Your task to perform on an android device: turn off translation in the chrome app Image 0: 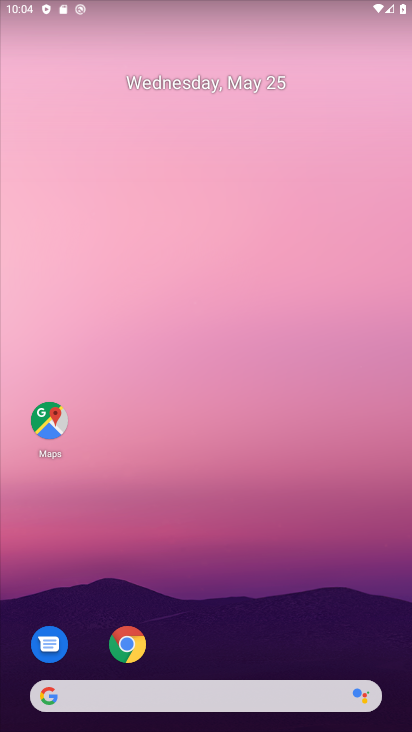
Step 0: drag from (226, 621) to (290, 71)
Your task to perform on an android device: turn off translation in the chrome app Image 1: 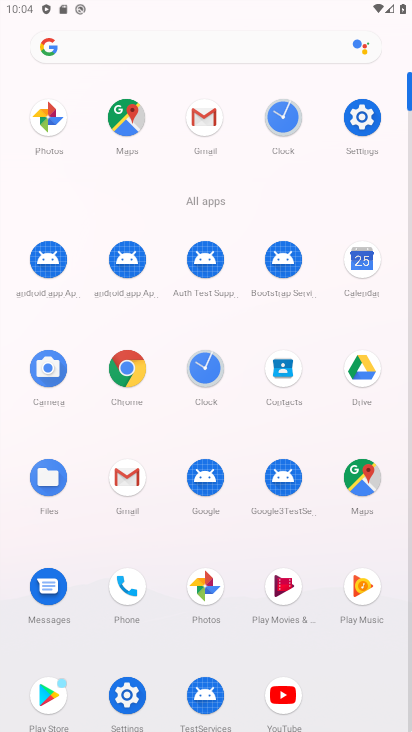
Step 1: click (128, 368)
Your task to perform on an android device: turn off translation in the chrome app Image 2: 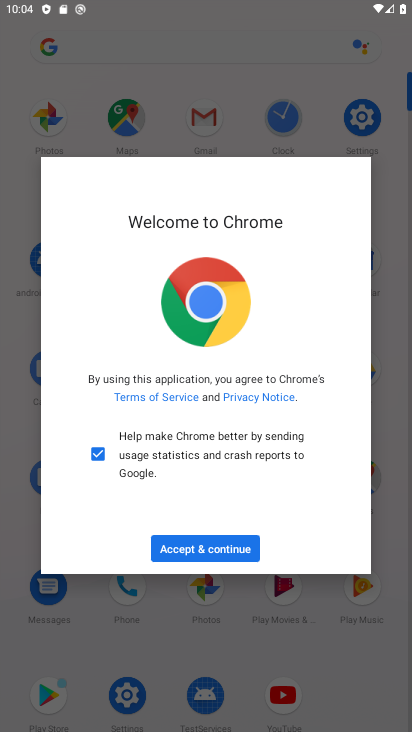
Step 2: click (190, 541)
Your task to perform on an android device: turn off translation in the chrome app Image 3: 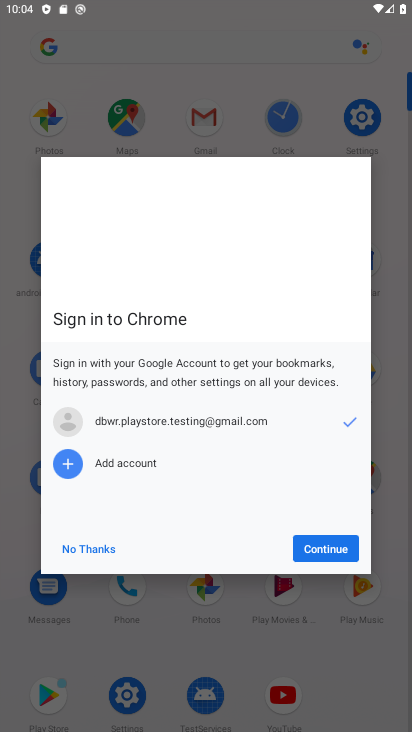
Step 3: click (313, 546)
Your task to perform on an android device: turn off translation in the chrome app Image 4: 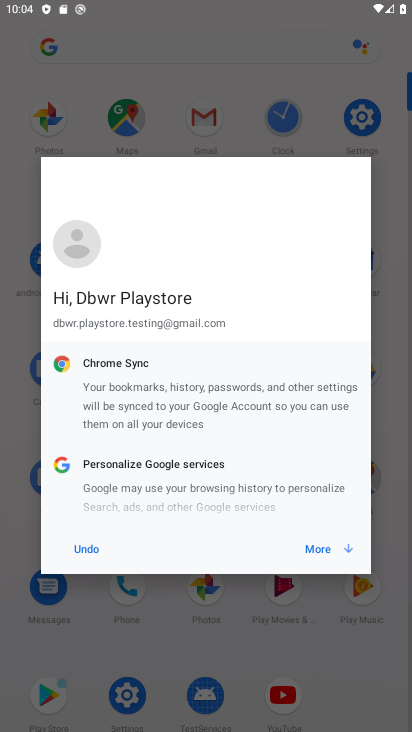
Step 4: click (313, 546)
Your task to perform on an android device: turn off translation in the chrome app Image 5: 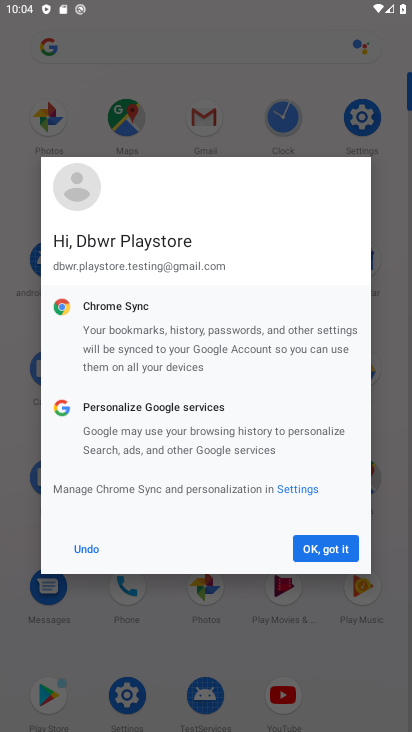
Step 5: click (313, 546)
Your task to perform on an android device: turn off translation in the chrome app Image 6: 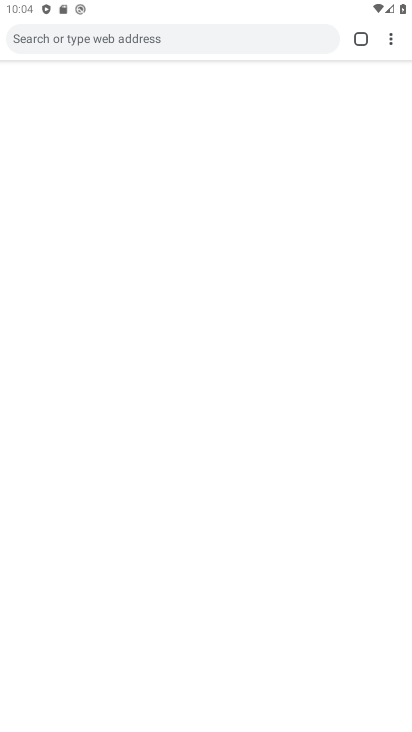
Step 6: click (388, 38)
Your task to perform on an android device: turn off translation in the chrome app Image 7: 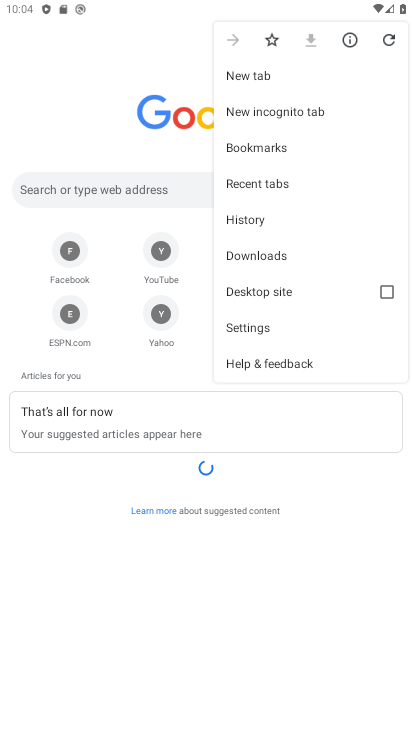
Step 7: click (267, 330)
Your task to perform on an android device: turn off translation in the chrome app Image 8: 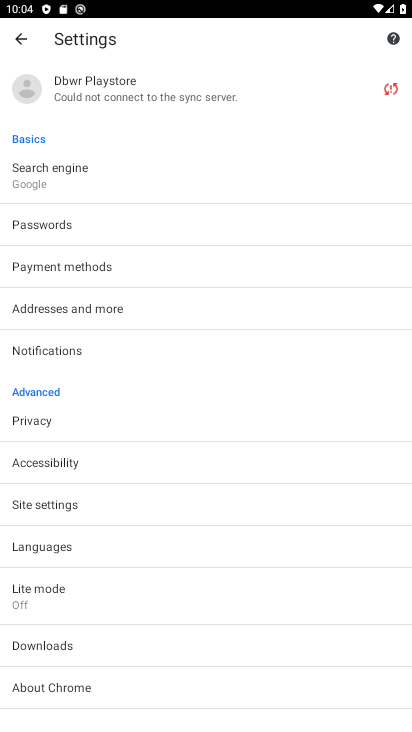
Step 8: click (45, 542)
Your task to perform on an android device: turn off translation in the chrome app Image 9: 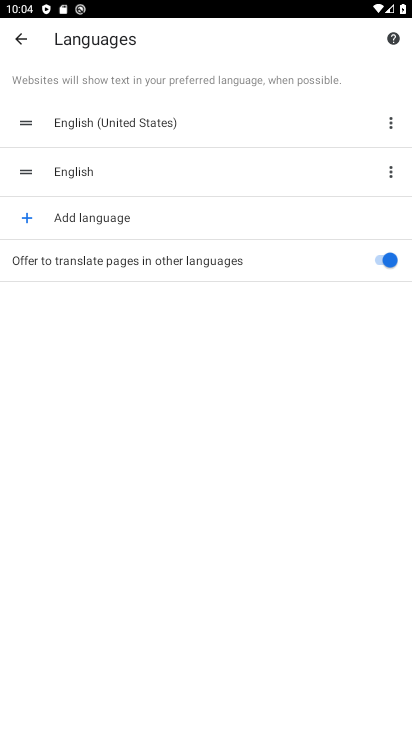
Step 9: click (376, 258)
Your task to perform on an android device: turn off translation in the chrome app Image 10: 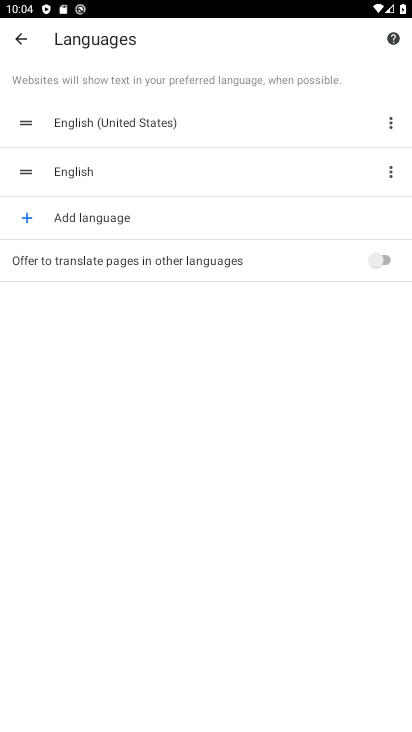
Step 10: task complete